Your task to perform on an android device: Go to Yahoo.com Image 0: 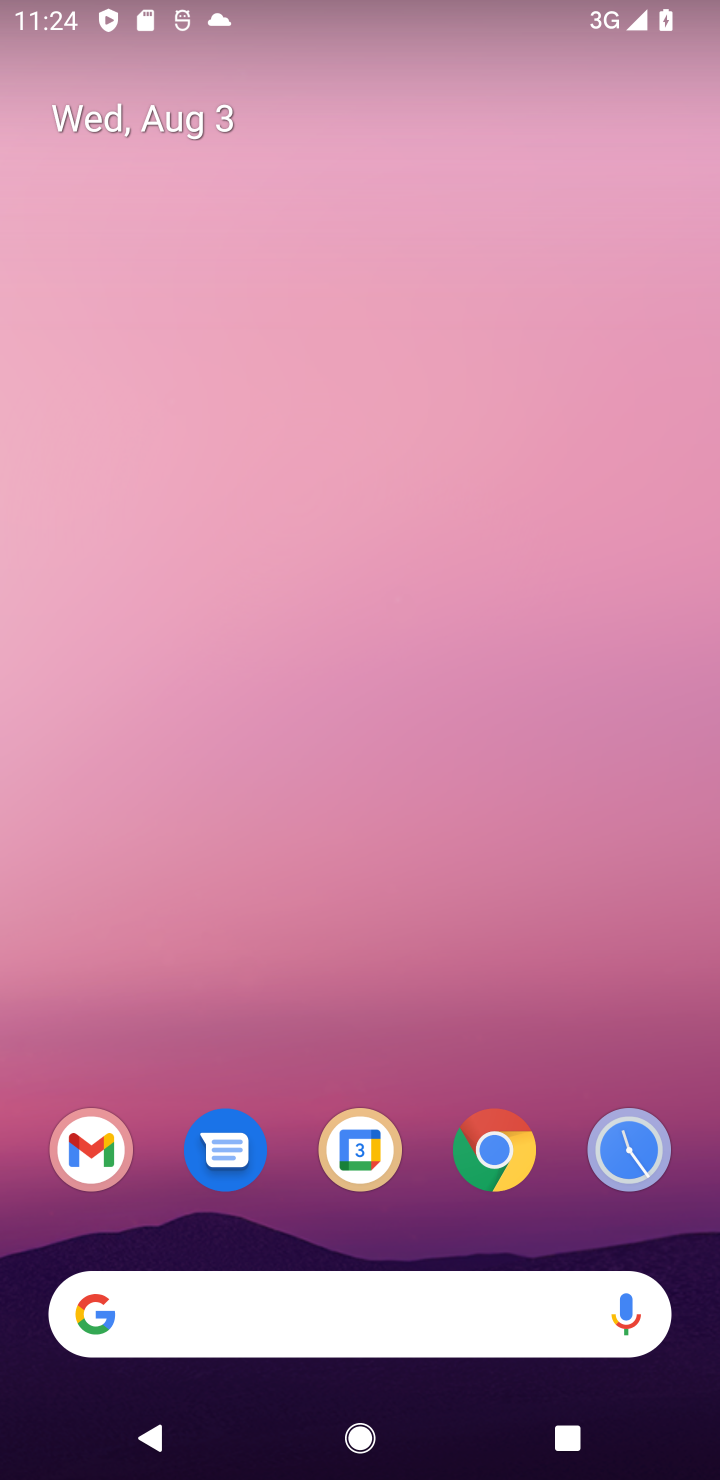
Step 0: press home button
Your task to perform on an android device: Go to Yahoo.com Image 1: 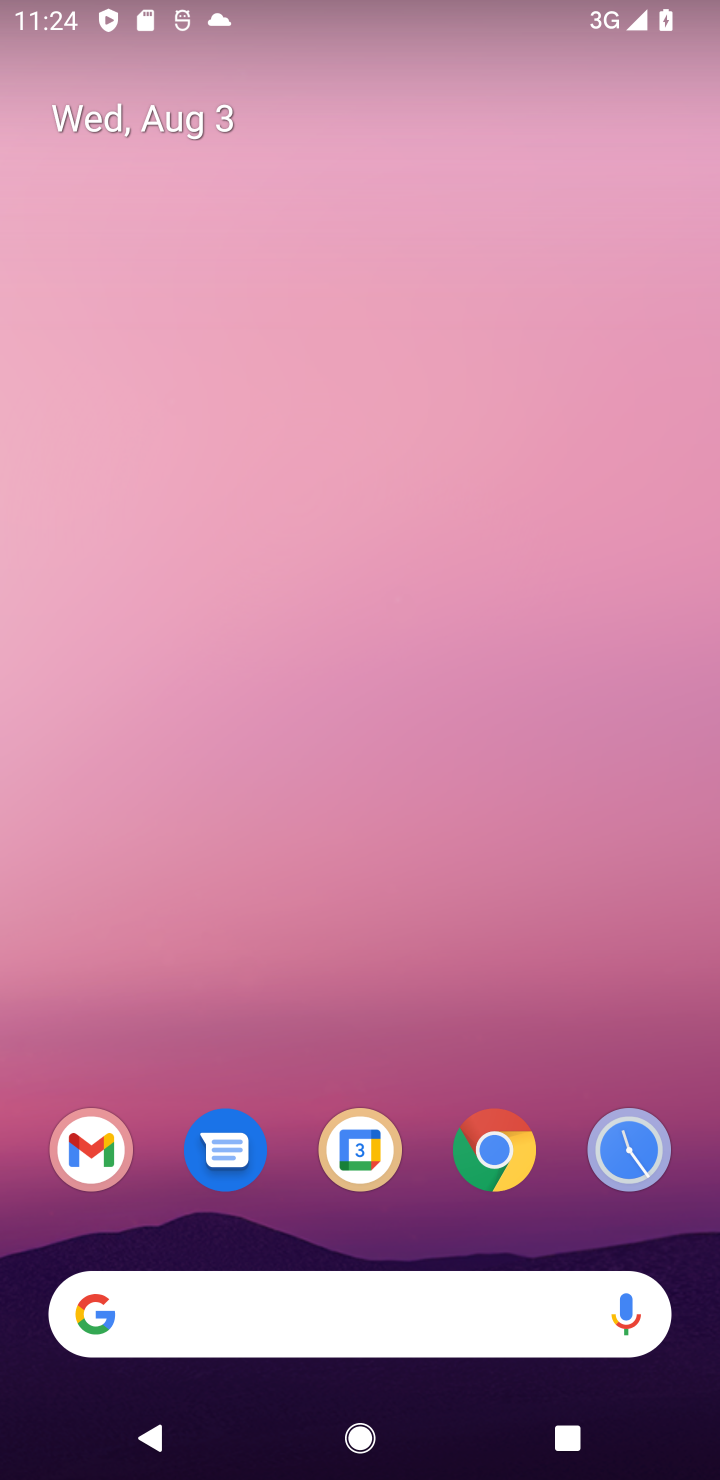
Step 1: drag from (562, 1037) to (568, 292)
Your task to perform on an android device: Go to Yahoo.com Image 2: 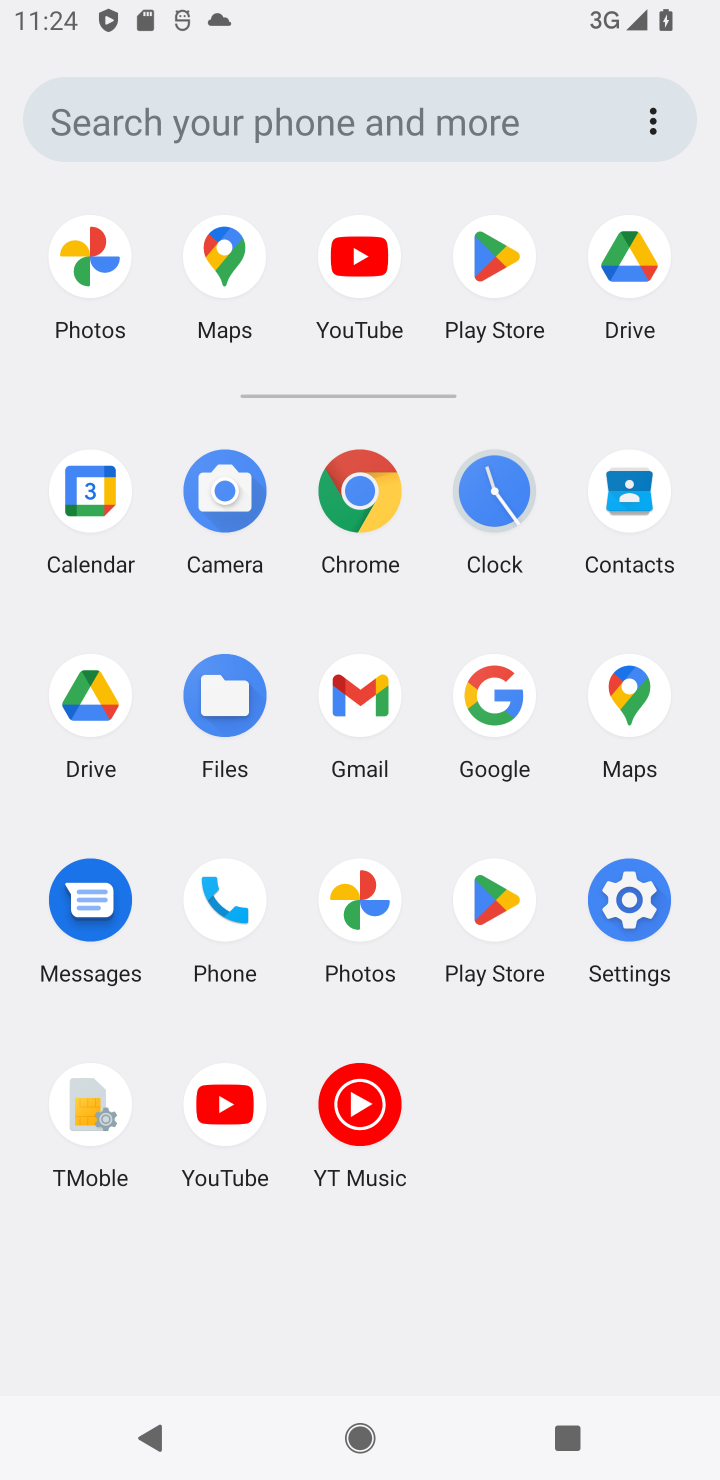
Step 2: click (346, 515)
Your task to perform on an android device: Go to Yahoo.com Image 3: 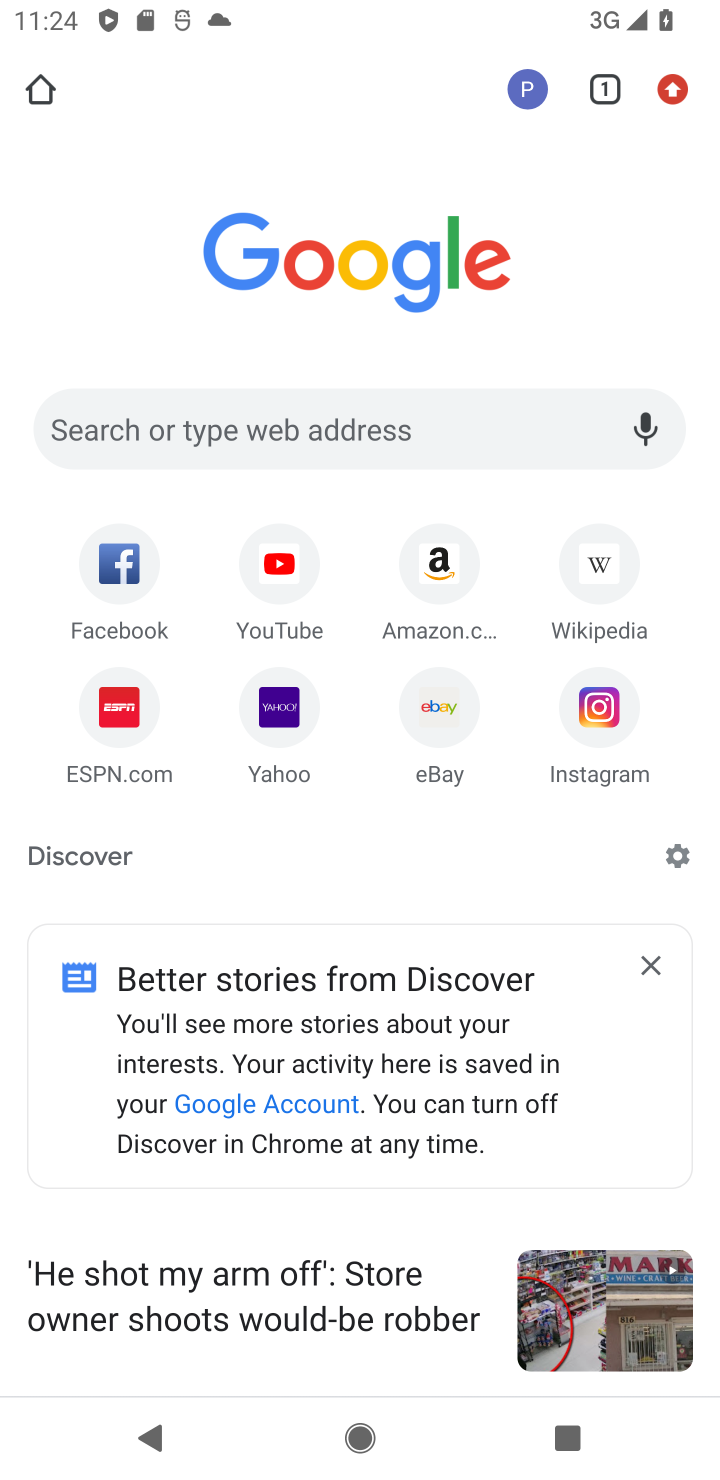
Step 3: click (435, 423)
Your task to perform on an android device: Go to Yahoo.com Image 4: 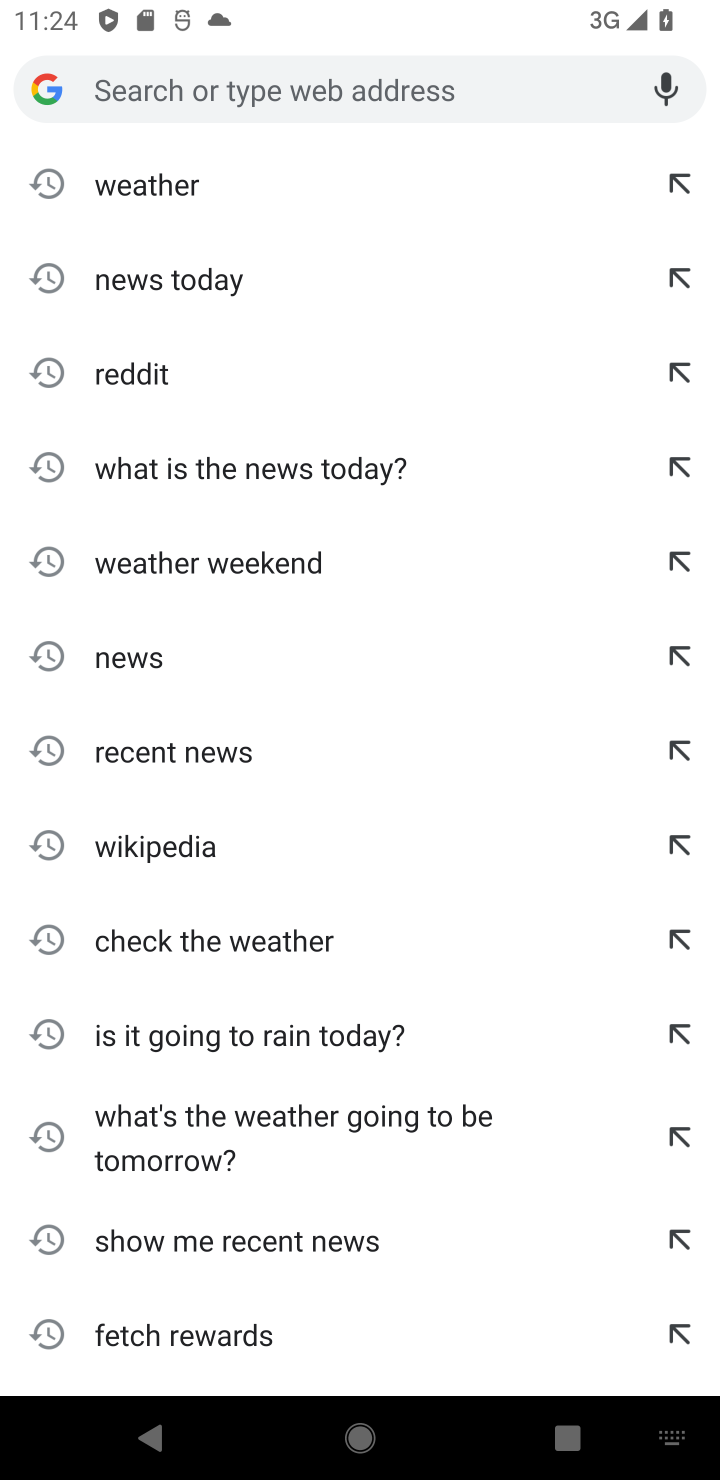
Step 4: type "yahoo.com"
Your task to perform on an android device: Go to Yahoo.com Image 5: 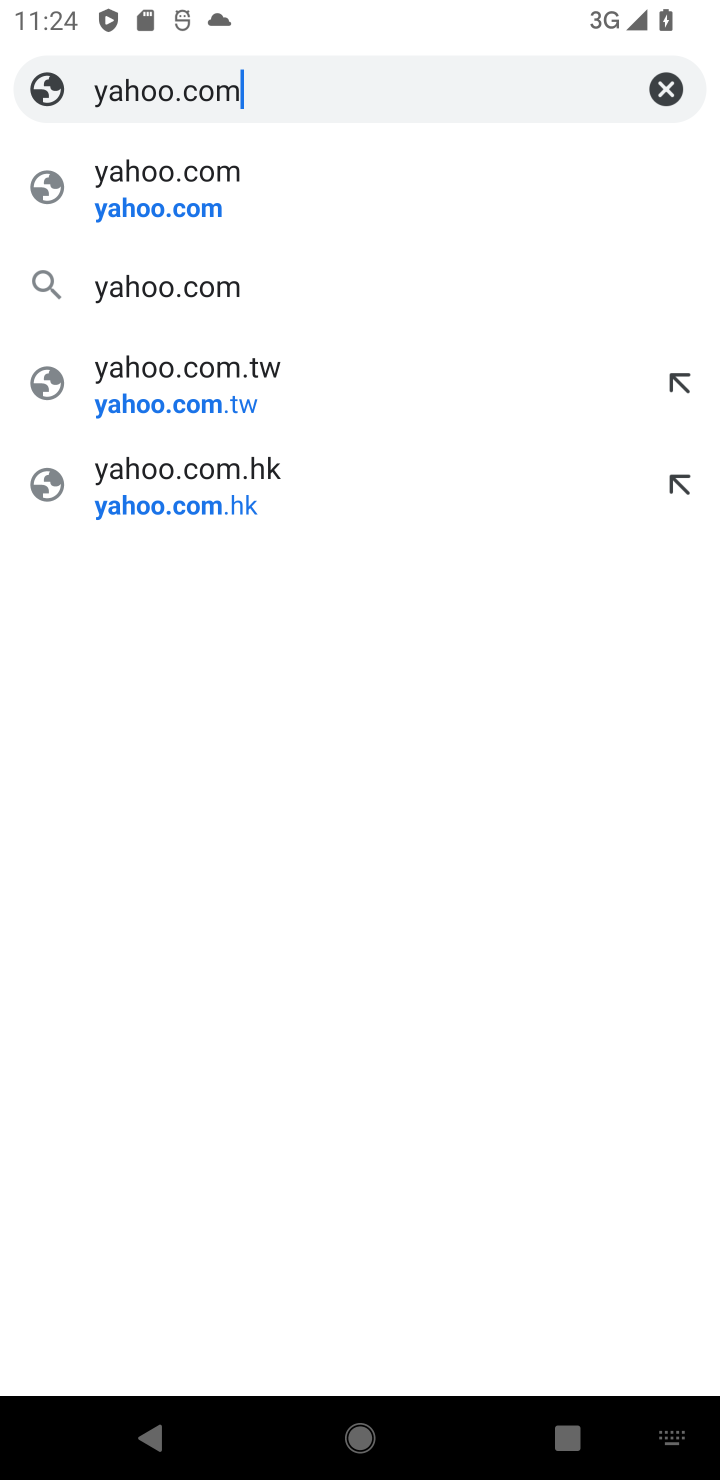
Step 5: click (245, 193)
Your task to perform on an android device: Go to Yahoo.com Image 6: 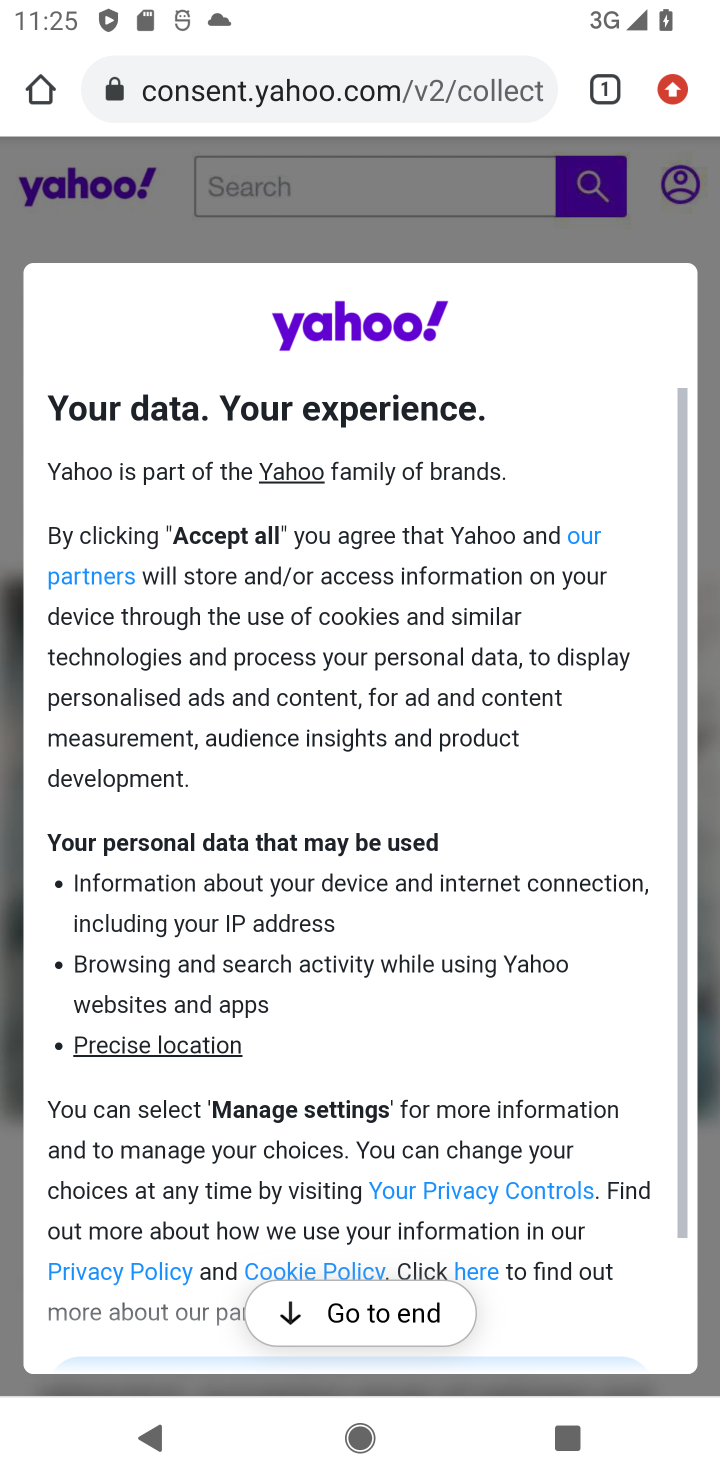
Step 6: task complete